Your task to perform on an android device: turn on airplane mode Image 0: 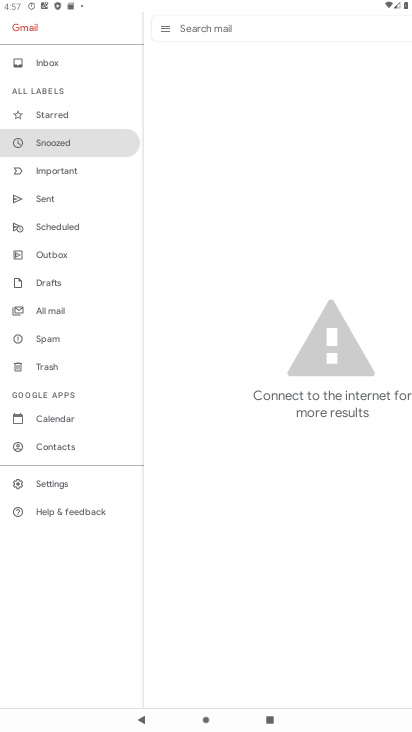
Step 0: press home button
Your task to perform on an android device: turn on airplane mode Image 1: 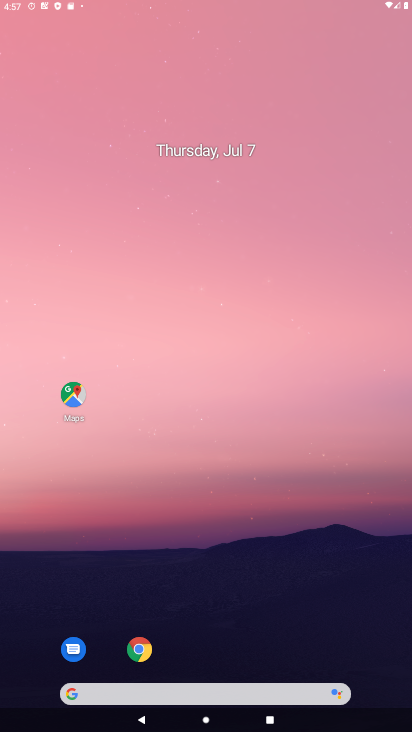
Step 1: drag from (368, 694) to (285, 48)
Your task to perform on an android device: turn on airplane mode Image 2: 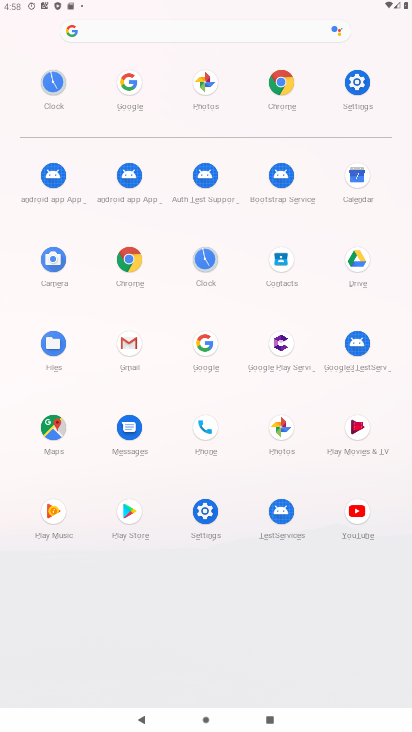
Step 2: drag from (281, 4) to (297, 507)
Your task to perform on an android device: turn on airplane mode Image 3: 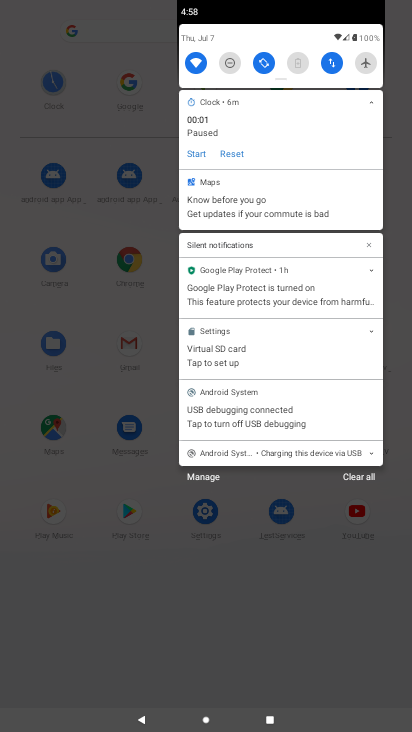
Step 3: click (364, 59)
Your task to perform on an android device: turn on airplane mode Image 4: 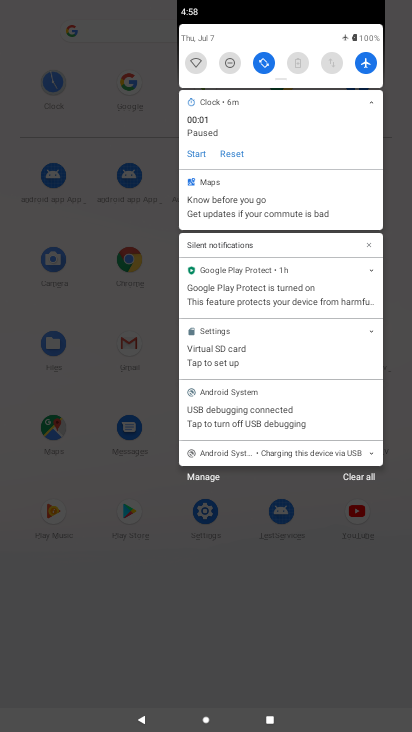
Step 4: task complete